Your task to perform on an android device: Open calendar and show me the third week of next month Image 0: 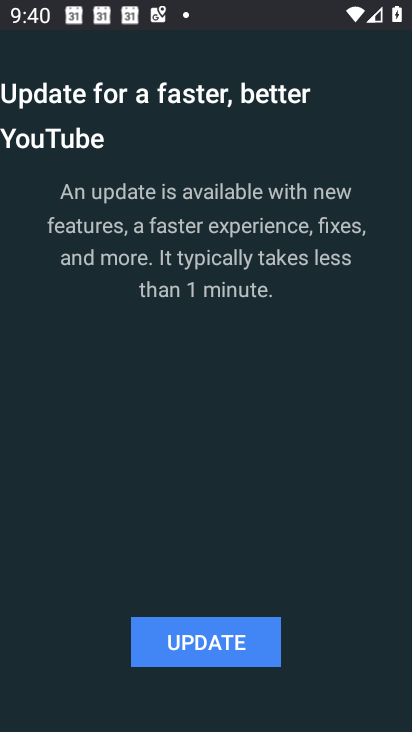
Step 0: press home button
Your task to perform on an android device: Open calendar and show me the third week of next month Image 1: 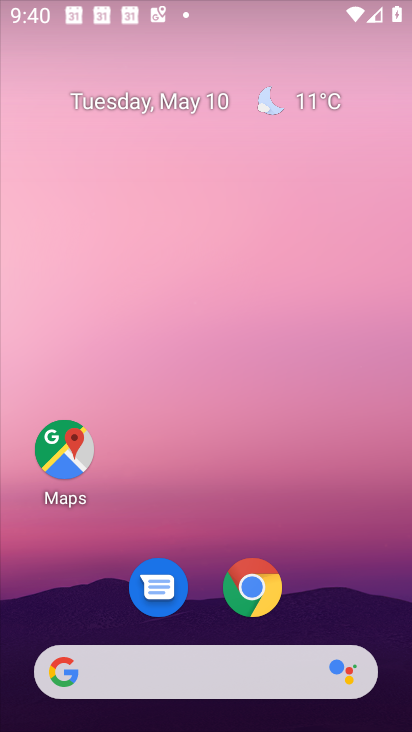
Step 1: drag from (371, 612) to (332, 151)
Your task to perform on an android device: Open calendar and show me the third week of next month Image 2: 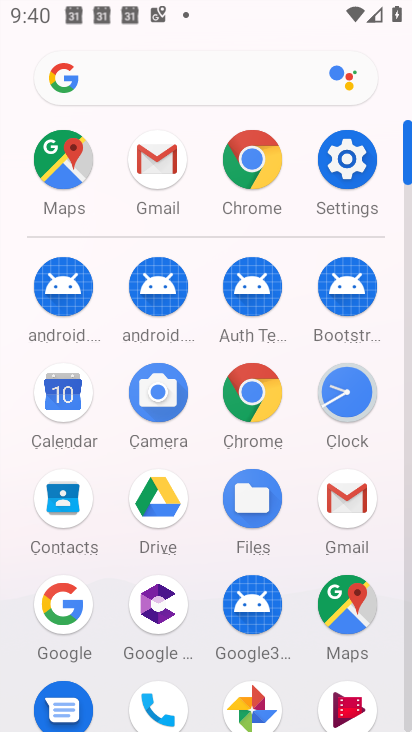
Step 2: click (51, 406)
Your task to perform on an android device: Open calendar and show me the third week of next month Image 3: 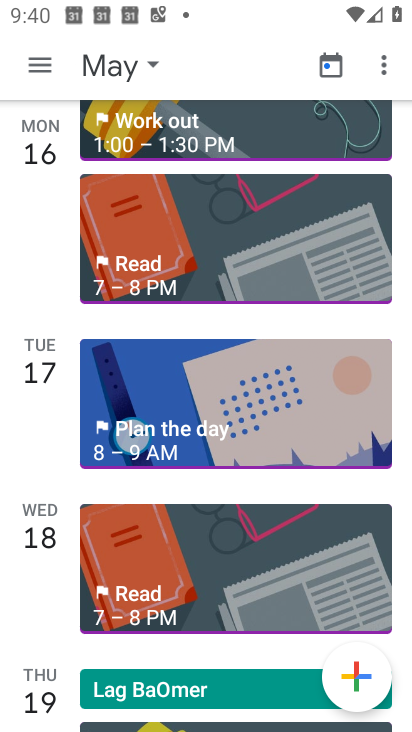
Step 3: click (109, 64)
Your task to perform on an android device: Open calendar and show me the third week of next month Image 4: 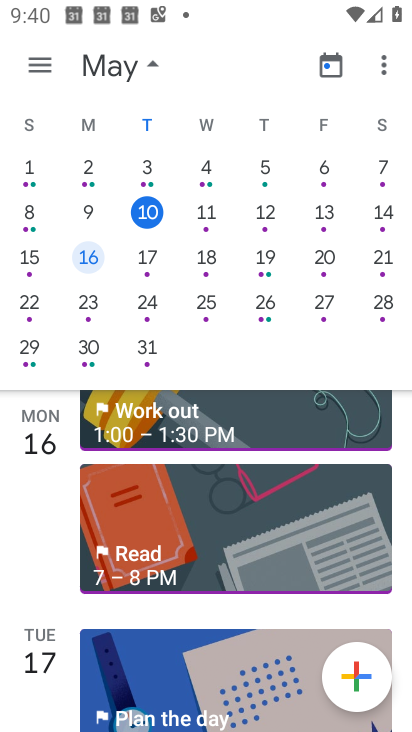
Step 4: click (28, 264)
Your task to perform on an android device: Open calendar and show me the third week of next month Image 5: 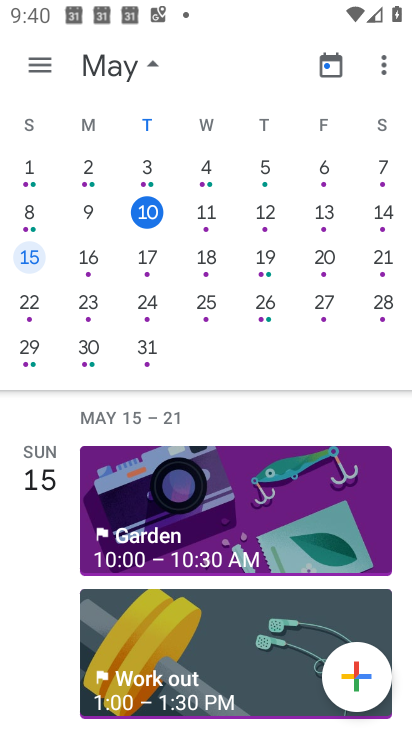
Step 5: drag from (240, 285) to (1, 271)
Your task to perform on an android device: Open calendar and show me the third week of next month Image 6: 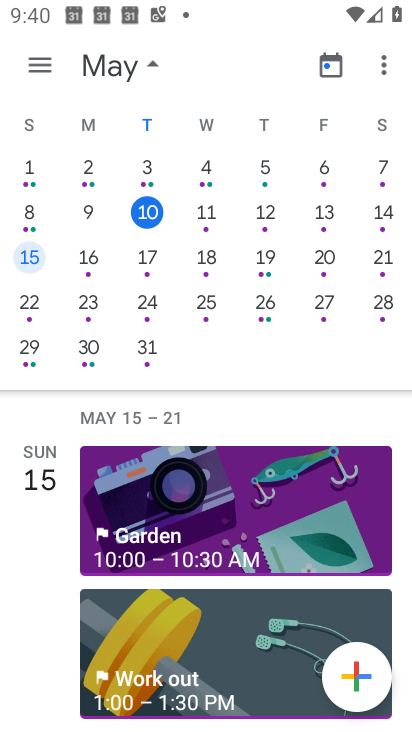
Step 6: drag from (364, 211) to (0, 238)
Your task to perform on an android device: Open calendar and show me the third week of next month Image 7: 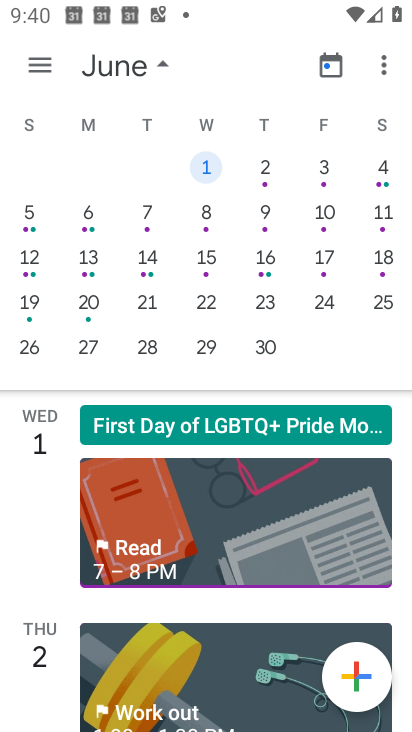
Step 7: click (25, 259)
Your task to perform on an android device: Open calendar and show me the third week of next month Image 8: 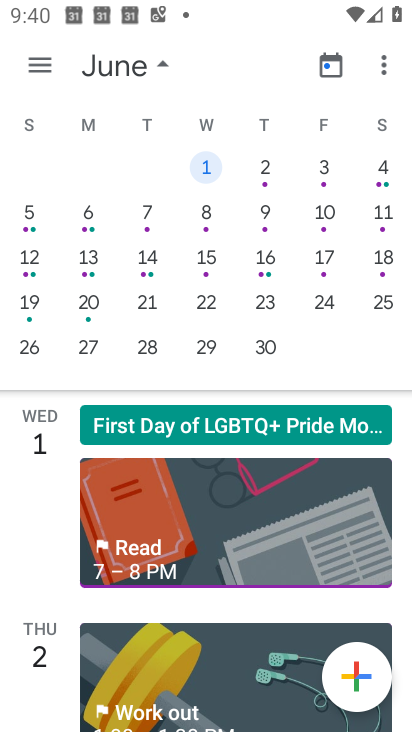
Step 8: click (36, 261)
Your task to perform on an android device: Open calendar and show me the third week of next month Image 9: 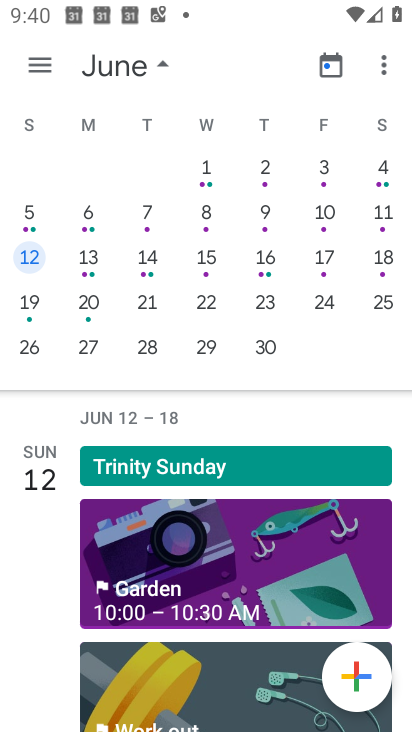
Step 9: task complete